Your task to perform on an android device: What's the weather today? Image 0: 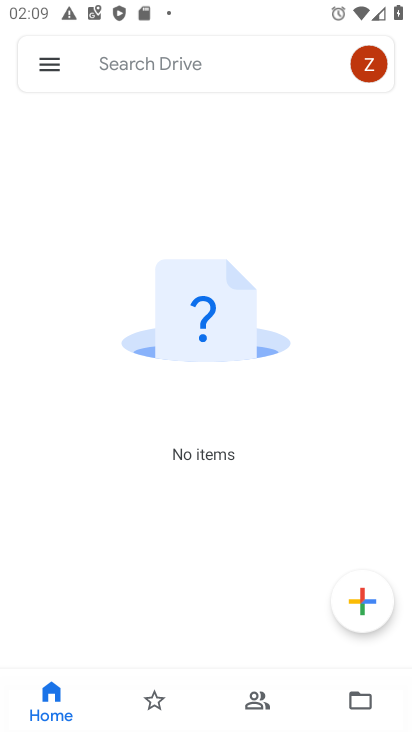
Step 0: press home button
Your task to perform on an android device: What's the weather today? Image 1: 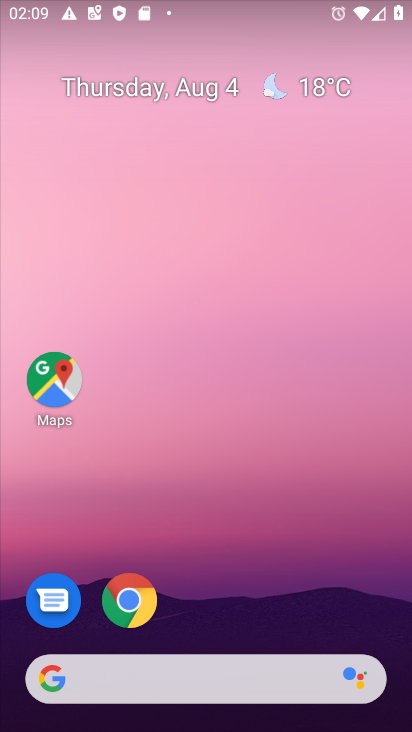
Step 1: click (148, 673)
Your task to perform on an android device: What's the weather today? Image 2: 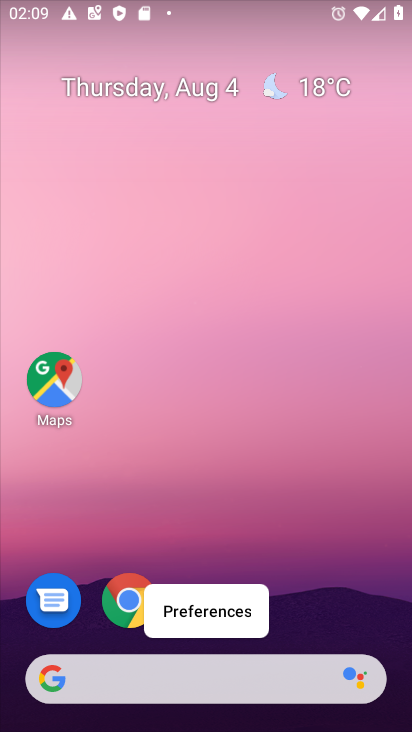
Step 2: click (136, 668)
Your task to perform on an android device: What's the weather today? Image 3: 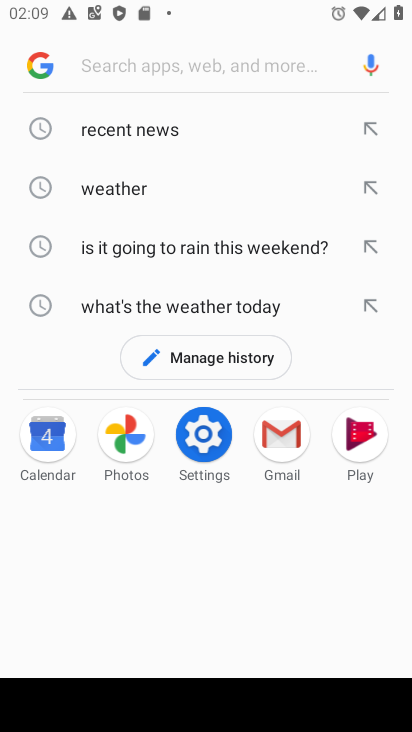
Step 3: click (118, 186)
Your task to perform on an android device: What's the weather today? Image 4: 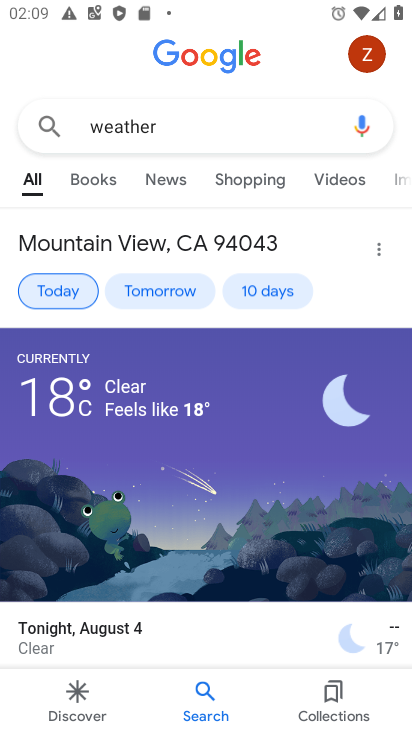
Step 4: task complete